Your task to perform on an android device: set the stopwatch Image 0: 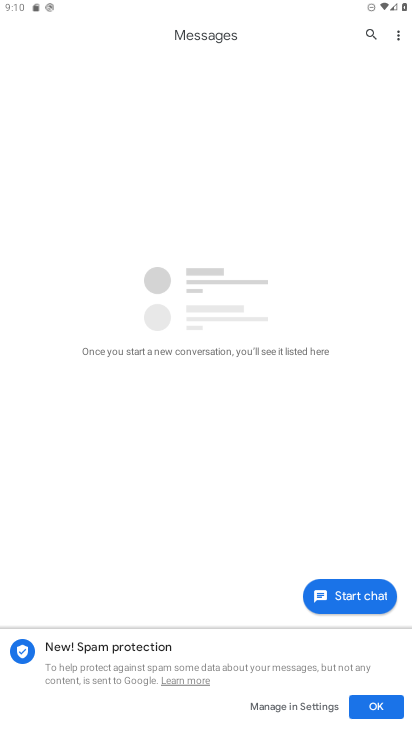
Step 0: press back button
Your task to perform on an android device: set the stopwatch Image 1: 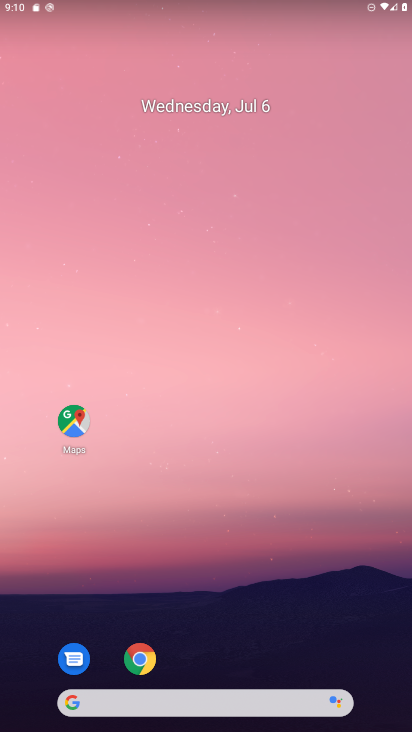
Step 1: drag from (357, 639) to (376, 264)
Your task to perform on an android device: set the stopwatch Image 2: 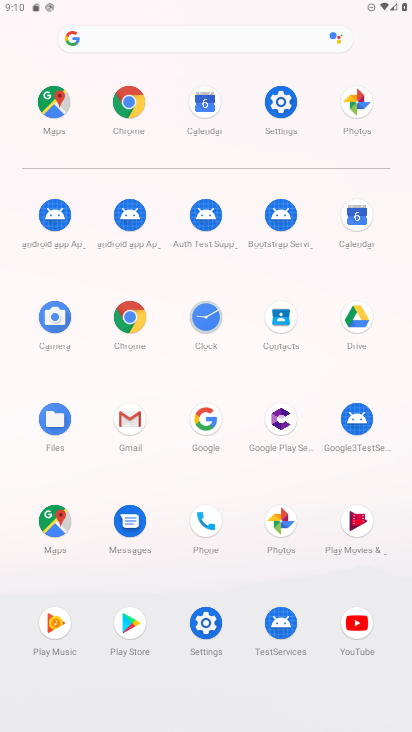
Step 2: click (214, 322)
Your task to perform on an android device: set the stopwatch Image 3: 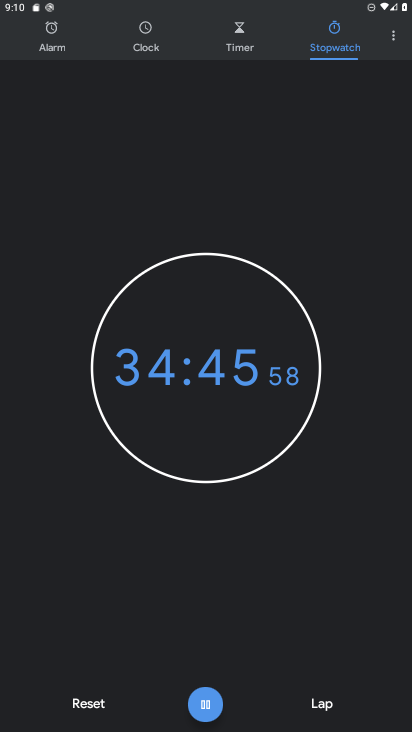
Step 3: task complete